Your task to perform on an android device: add a label to a message in the gmail app Image 0: 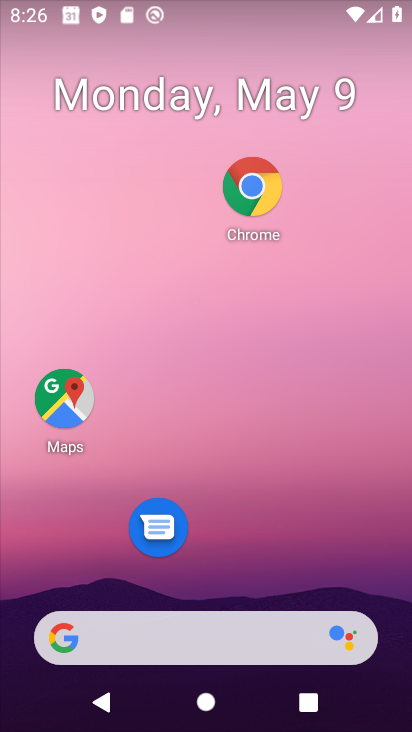
Step 0: drag from (196, 587) to (215, 125)
Your task to perform on an android device: add a label to a message in the gmail app Image 1: 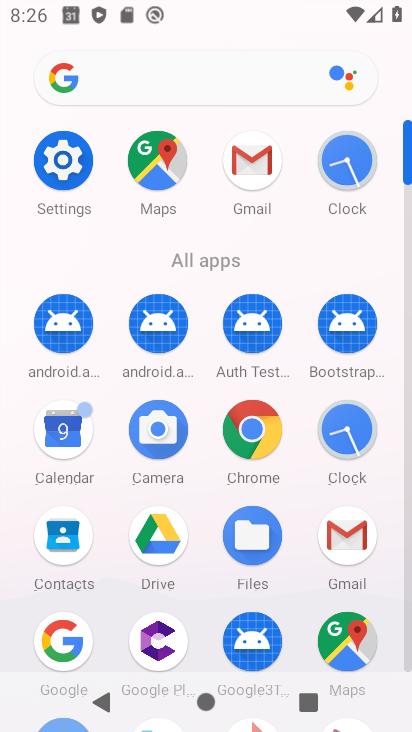
Step 1: click (246, 151)
Your task to perform on an android device: add a label to a message in the gmail app Image 2: 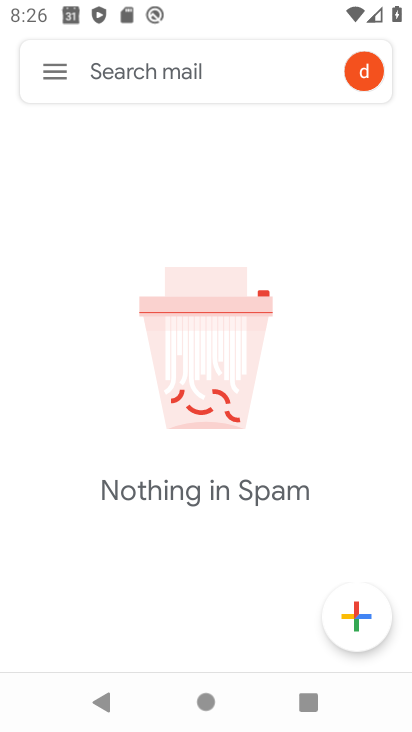
Step 2: click (50, 66)
Your task to perform on an android device: add a label to a message in the gmail app Image 3: 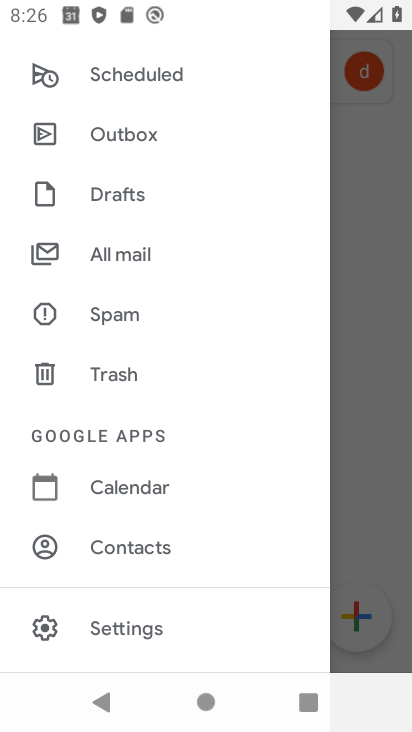
Step 3: click (157, 248)
Your task to perform on an android device: add a label to a message in the gmail app Image 4: 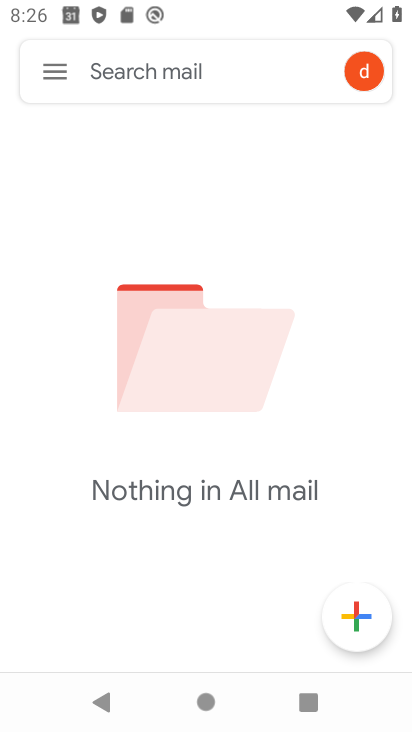
Step 4: task complete